Your task to perform on an android device: Open Google Image 0: 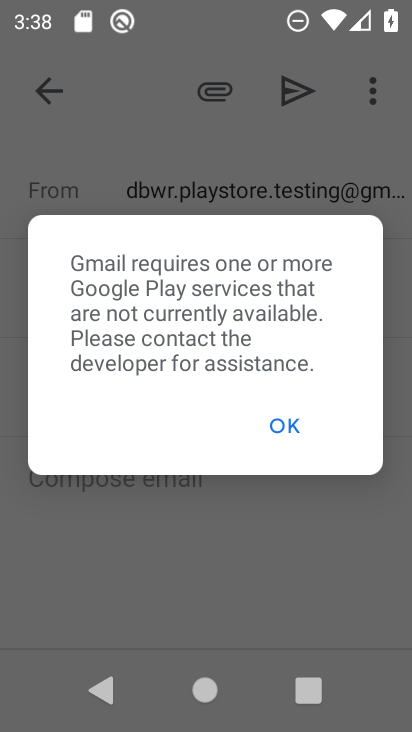
Step 0: press home button
Your task to perform on an android device: Open Google Image 1: 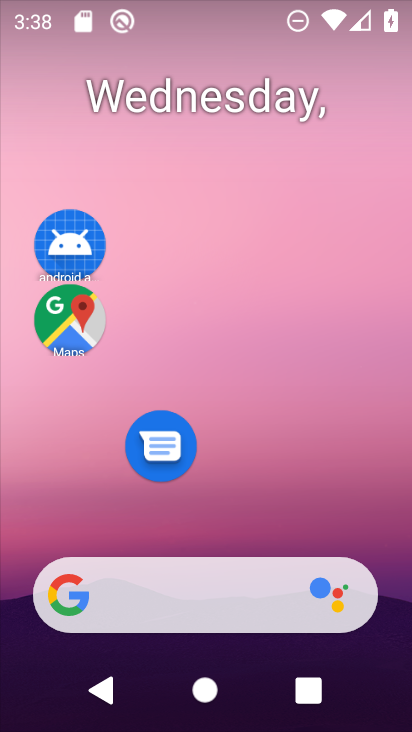
Step 1: drag from (257, 446) to (287, 147)
Your task to perform on an android device: Open Google Image 2: 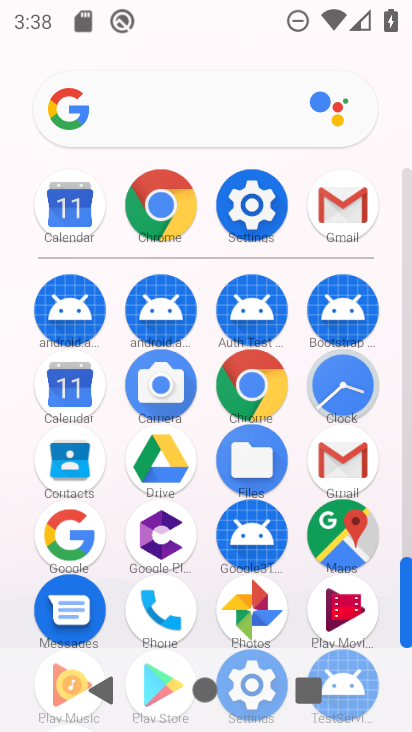
Step 2: click (174, 198)
Your task to perform on an android device: Open Google Image 3: 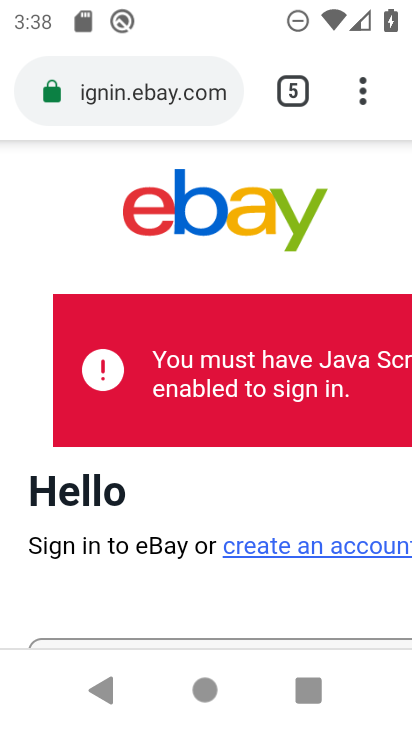
Step 3: click (208, 104)
Your task to perform on an android device: Open Google Image 4: 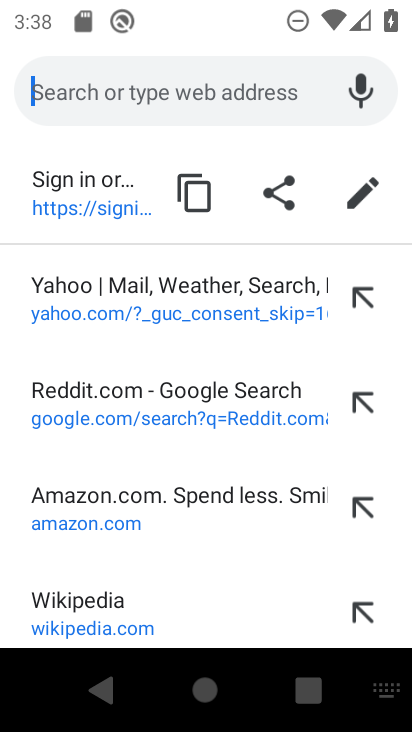
Step 4: type "google "
Your task to perform on an android device: Open Google Image 5: 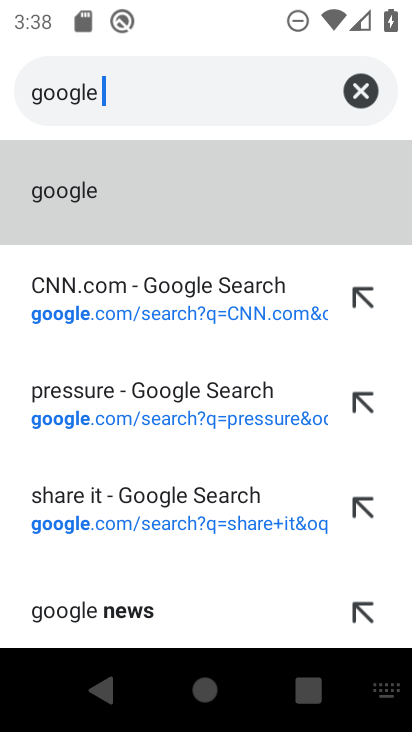
Step 5: click (127, 214)
Your task to perform on an android device: Open Google Image 6: 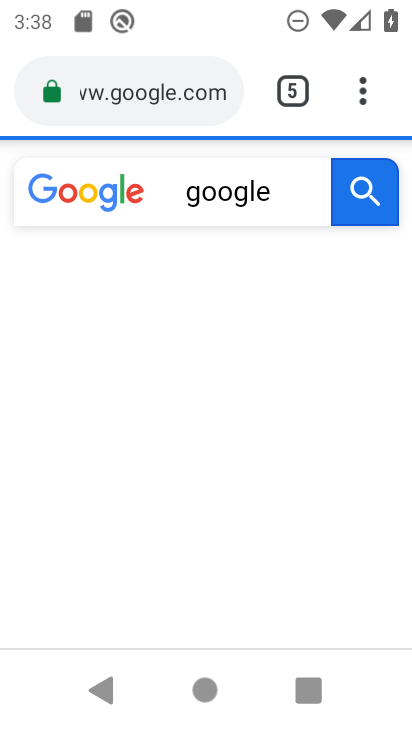
Step 6: task complete